Your task to perform on an android device: turn notification dots off Image 0: 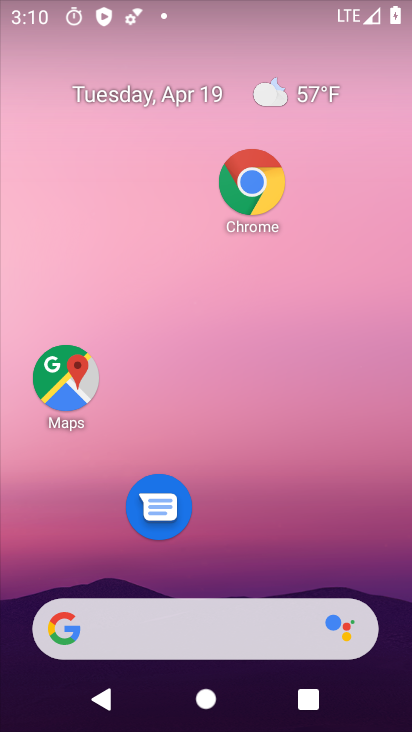
Step 0: drag from (276, 459) to (272, 228)
Your task to perform on an android device: turn notification dots off Image 1: 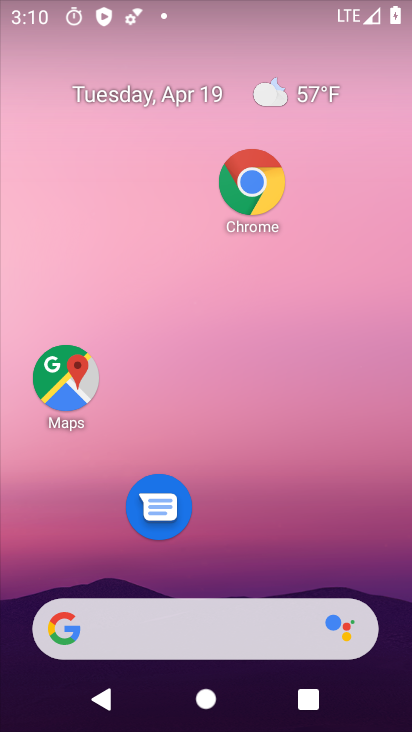
Step 1: drag from (247, 554) to (262, 94)
Your task to perform on an android device: turn notification dots off Image 2: 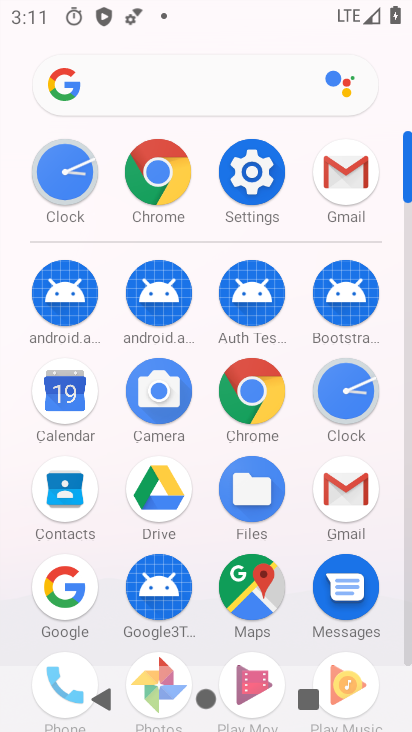
Step 2: click (269, 192)
Your task to perform on an android device: turn notification dots off Image 3: 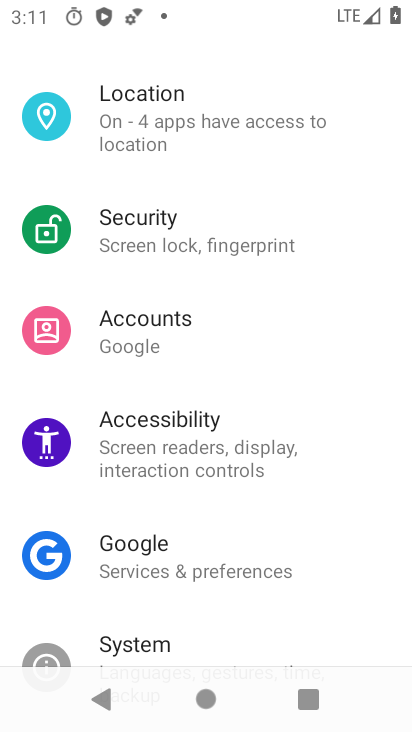
Step 3: drag from (210, 239) to (218, 507)
Your task to perform on an android device: turn notification dots off Image 4: 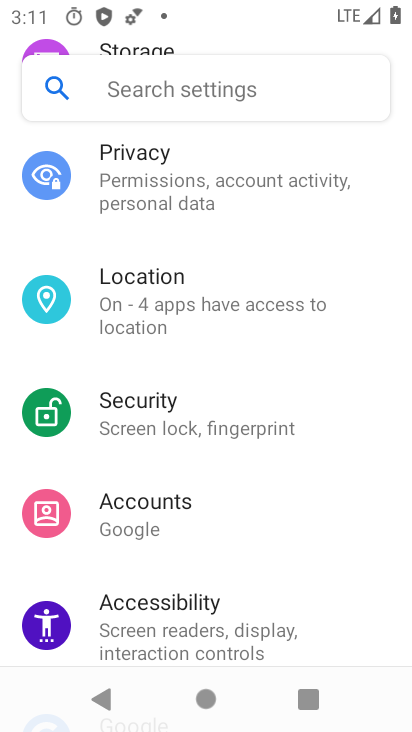
Step 4: drag from (210, 180) to (229, 454)
Your task to perform on an android device: turn notification dots off Image 5: 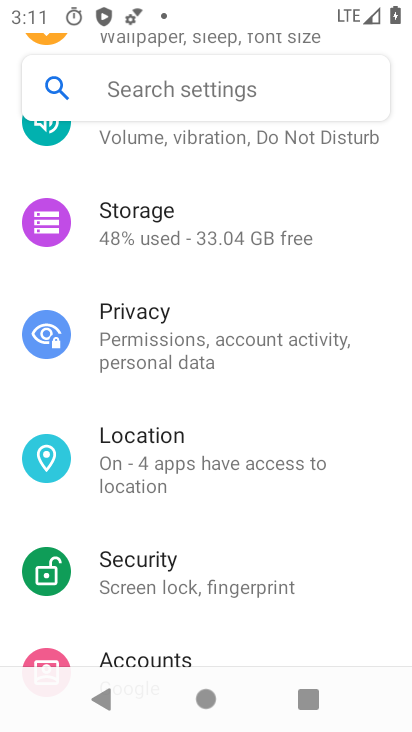
Step 5: drag from (270, 239) to (250, 488)
Your task to perform on an android device: turn notification dots off Image 6: 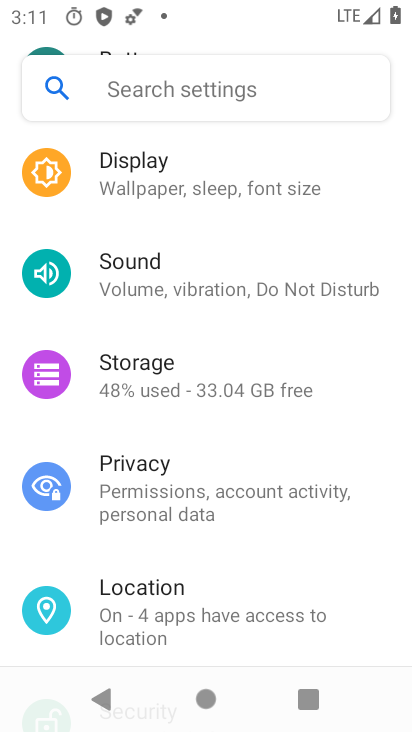
Step 6: drag from (228, 260) to (229, 488)
Your task to perform on an android device: turn notification dots off Image 7: 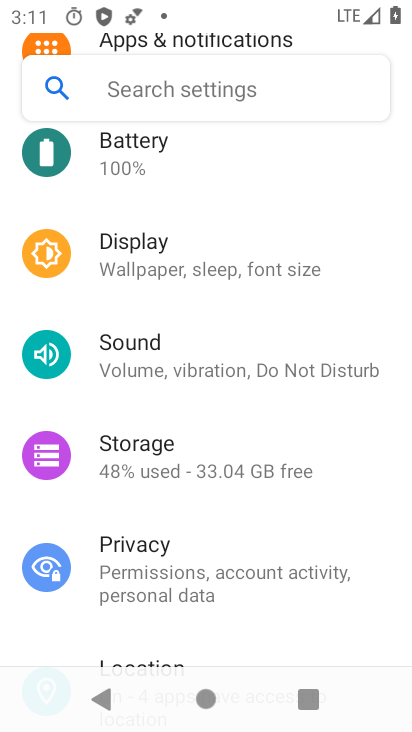
Step 7: drag from (229, 259) to (182, 588)
Your task to perform on an android device: turn notification dots off Image 8: 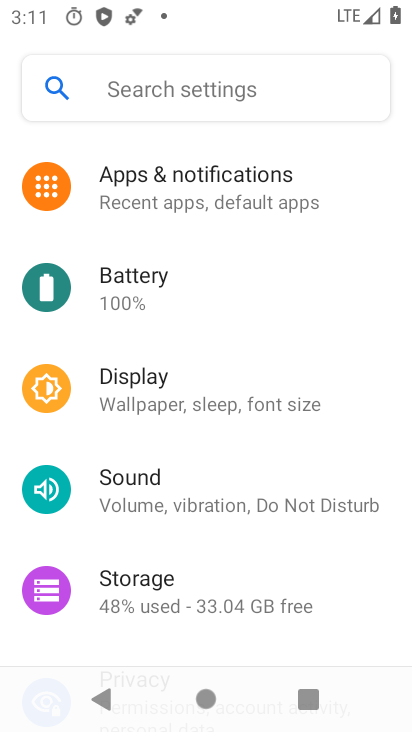
Step 8: click (267, 212)
Your task to perform on an android device: turn notification dots off Image 9: 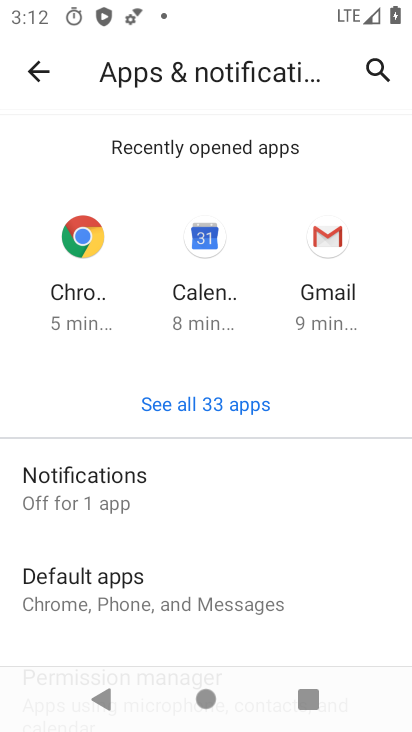
Step 9: click (219, 487)
Your task to perform on an android device: turn notification dots off Image 10: 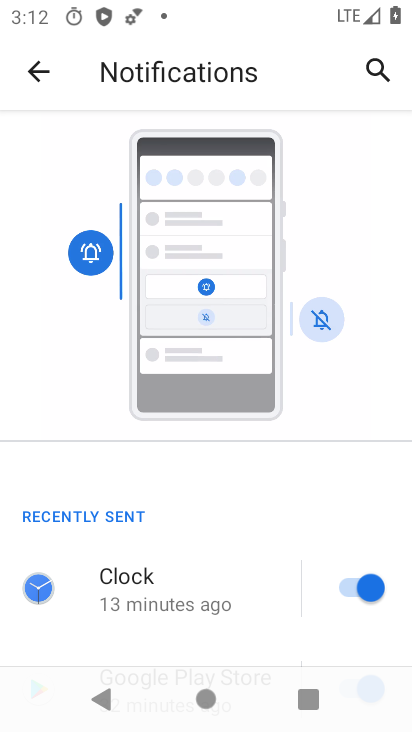
Step 10: drag from (219, 562) to (216, 251)
Your task to perform on an android device: turn notification dots off Image 11: 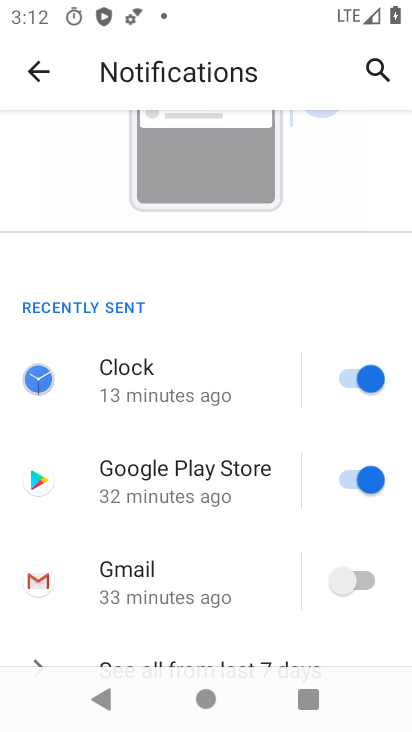
Step 11: drag from (208, 404) to (217, 251)
Your task to perform on an android device: turn notification dots off Image 12: 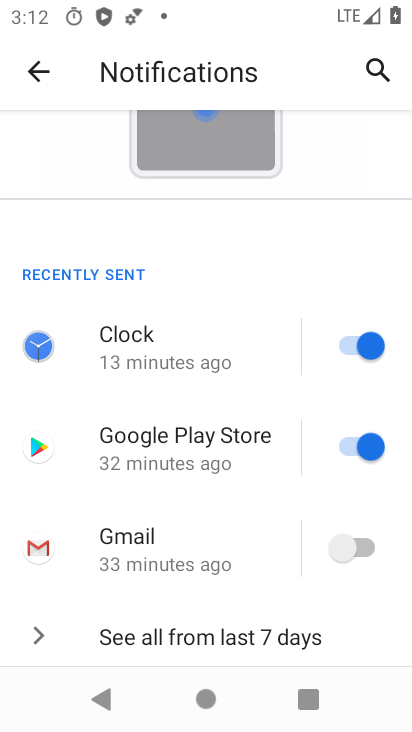
Step 12: drag from (173, 537) to (193, 308)
Your task to perform on an android device: turn notification dots off Image 13: 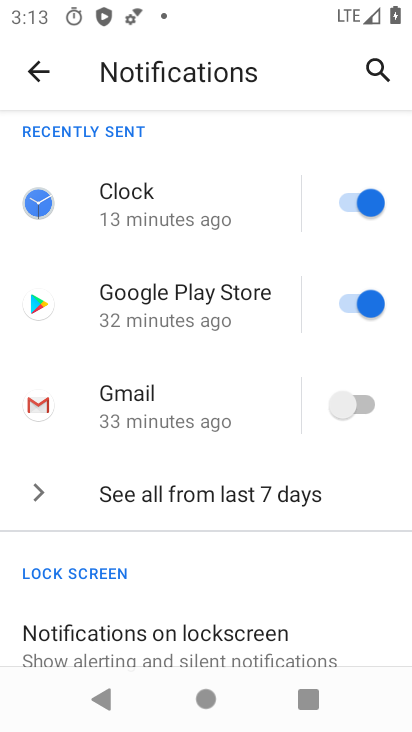
Step 13: drag from (226, 522) to (218, 246)
Your task to perform on an android device: turn notification dots off Image 14: 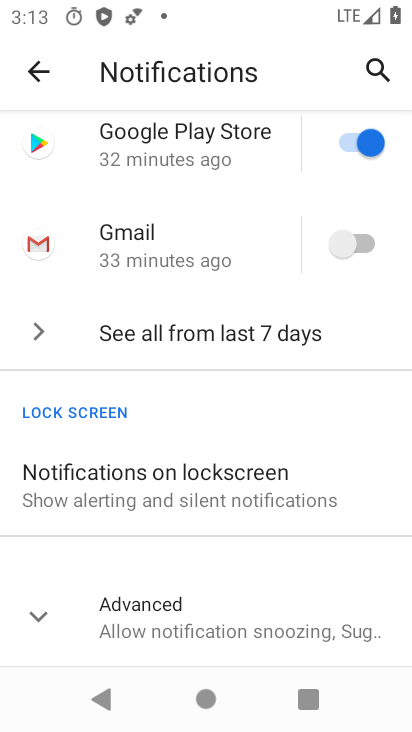
Step 14: click (216, 622)
Your task to perform on an android device: turn notification dots off Image 15: 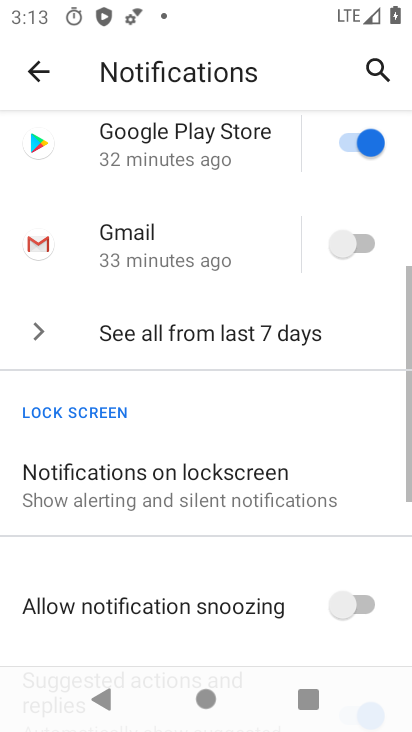
Step 15: drag from (217, 571) to (221, 205)
Your task to perform on an android device: turn notification dots off Image 16: 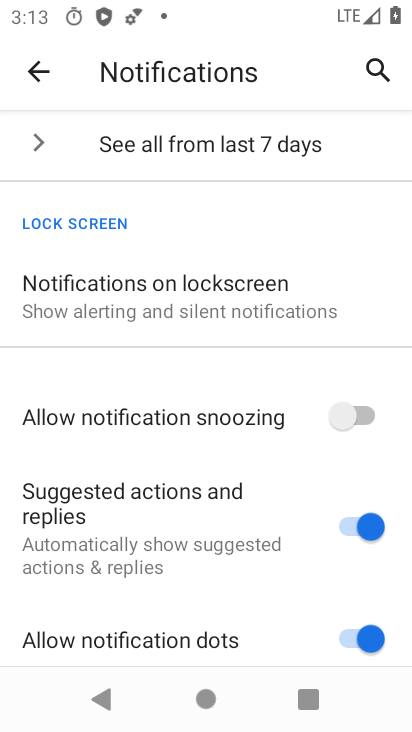
Step 16: drag from (249, 510) to (274, 339)
Your task to perform on an android device: turn notification dots off Image 17: 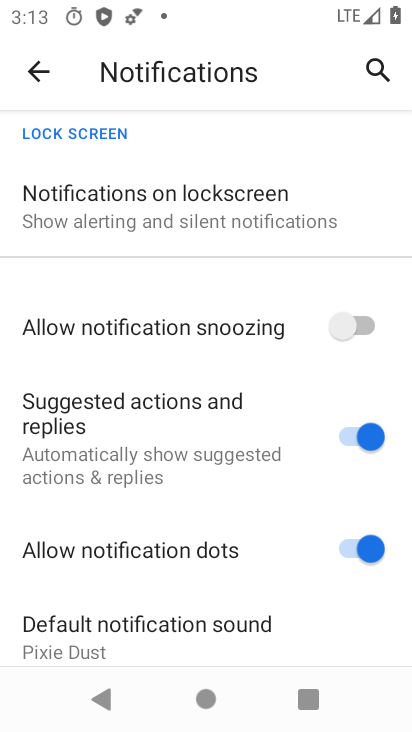
Step 17: drag from (219, 532) to (222, 391)
Your task to perform on an android device: turn notification dots off Image 18: 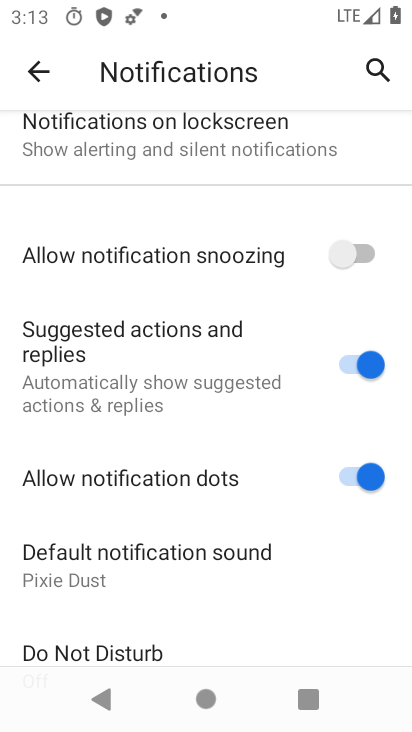
Step 18: click (335, 481)
Your task to perform on an android device: turn notification dots off Image 19: 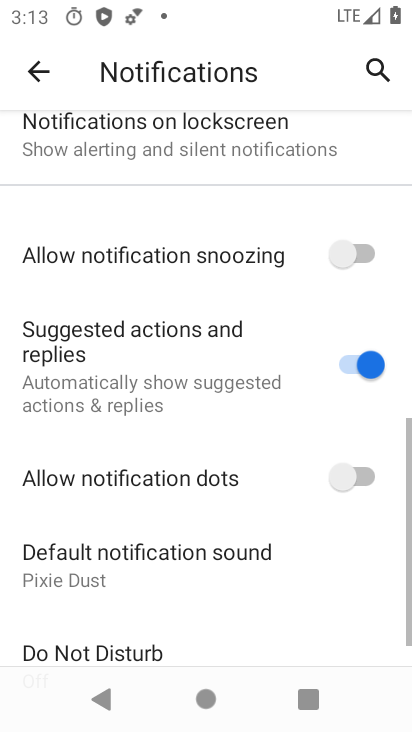
Step 19: task complete